Your task to perform on an android device: Set the phone to "Do not disturb". Image 0: 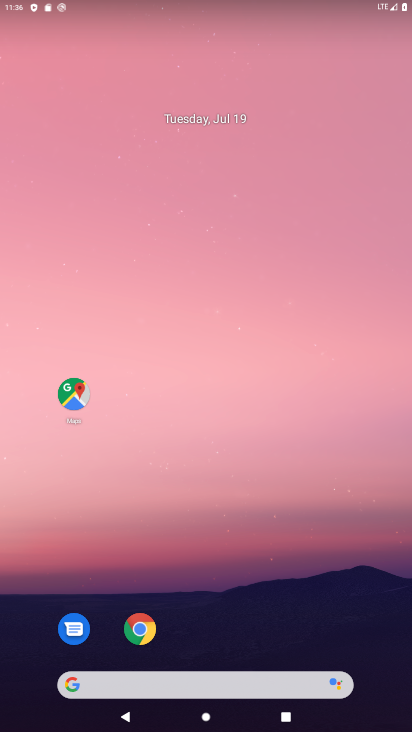
Step 0: drag from (191, 608) to (250, 27)
Your task to perform on an android device: Set the phone to "Do not disturb". Image 1: 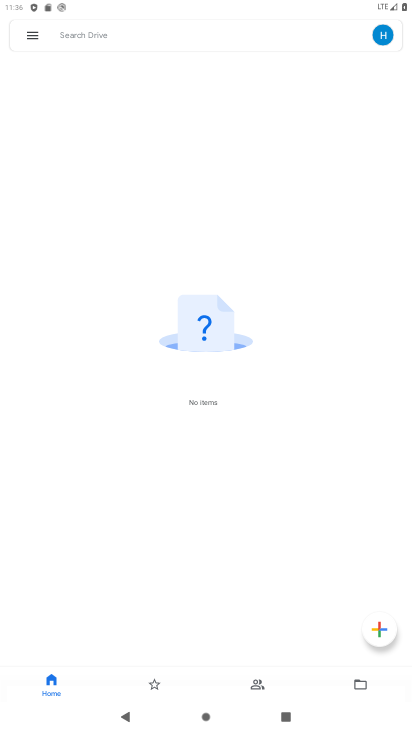
Step 1: press home button
Your task to perform on an android device: Set the phone to "Do not disturb". Image 2: 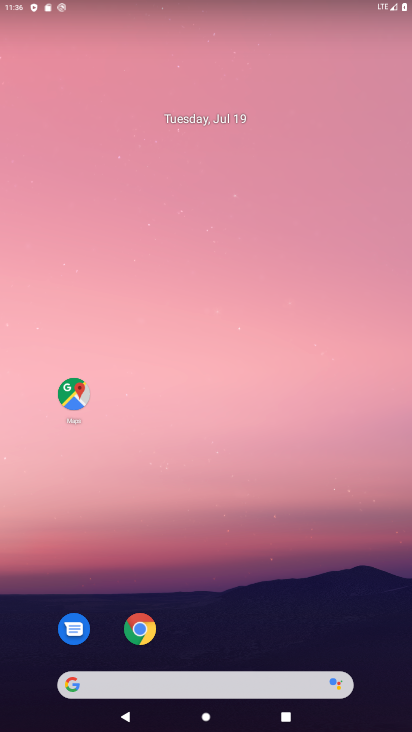
Step 2: click (144, 646)
Your task to perform on an android device: Set the phone to "Do not disturb". Image 3: 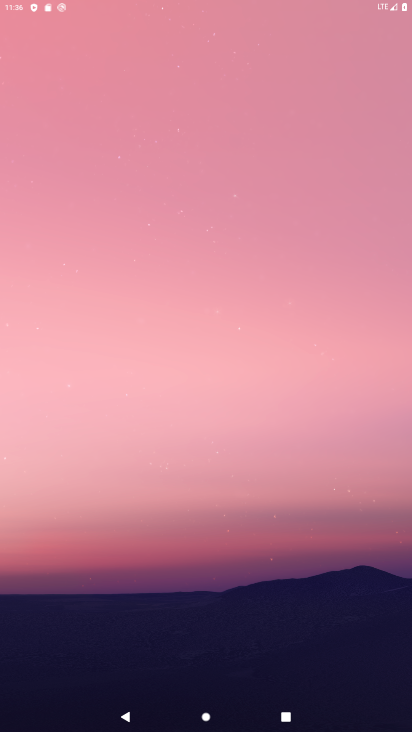
Step 3: drag from (204, 647) to (240, 167)
Your task to perform on an android device: Set the phone to "Do not disturb". Image 4: 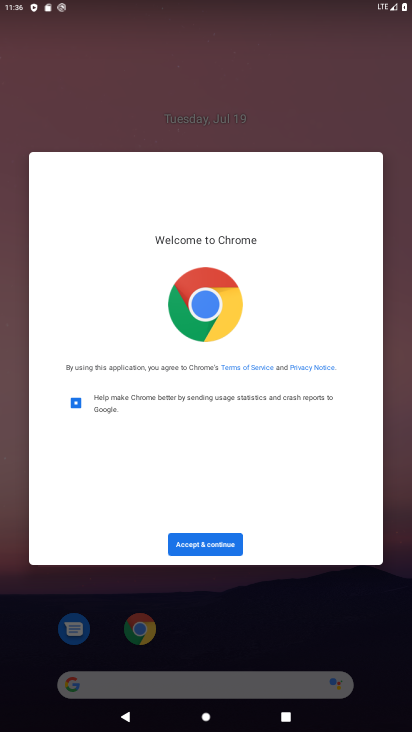
Step 4: press home button
Your task to perform on an android device: Set the phone to "Do not disturb". Image 5: 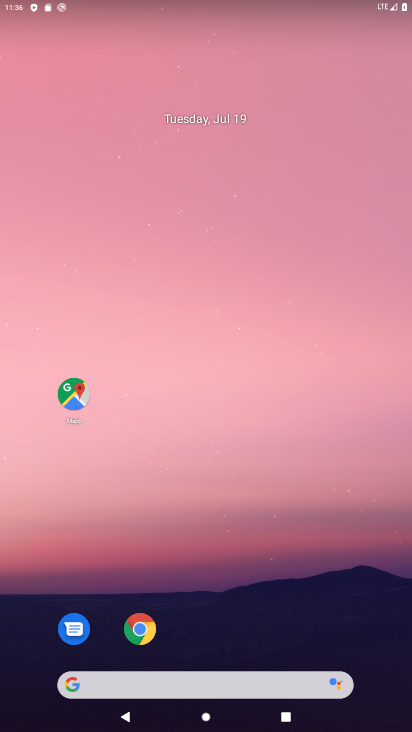
Step 5: drag from (186, 614) to (224, 153)
Your task to perform on an android device: Set the phone to "Do not disturb". Image 6: 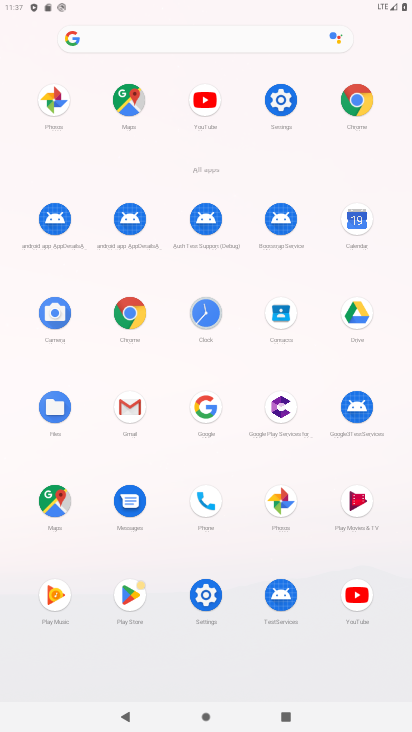
Step 6: click (277, 112)
Your task to perform on an android device: Set the phone to "Do not disturb". Image 7: 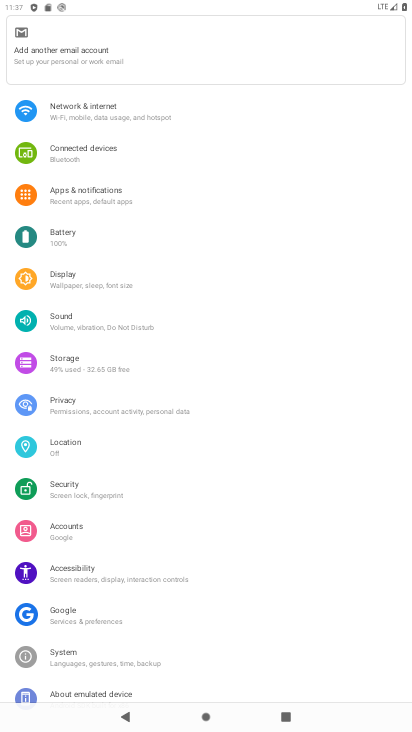
Step 7: click (69, 323)
Your task to perform on an android device: Set the phone to "Do not disturb". Image 8: 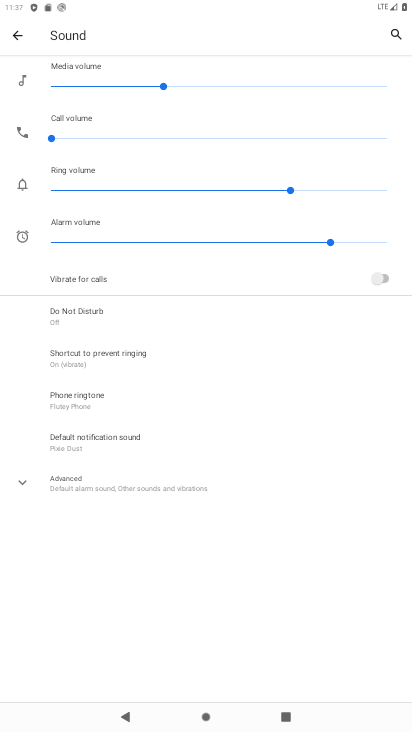
Step 8: click (72, 319)
Your task to perform on an android device: Set the phone to "Do not disturb". Image 9: 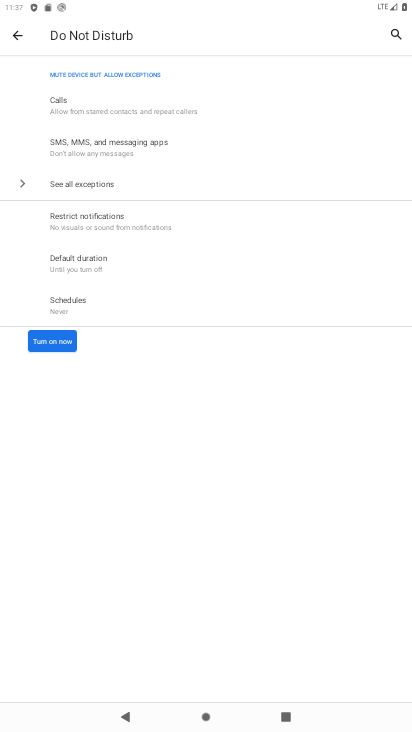
Step 9: click (53, 338)
Your task to perform on an android device: Set the phone to "Do not disturb". Image 10: 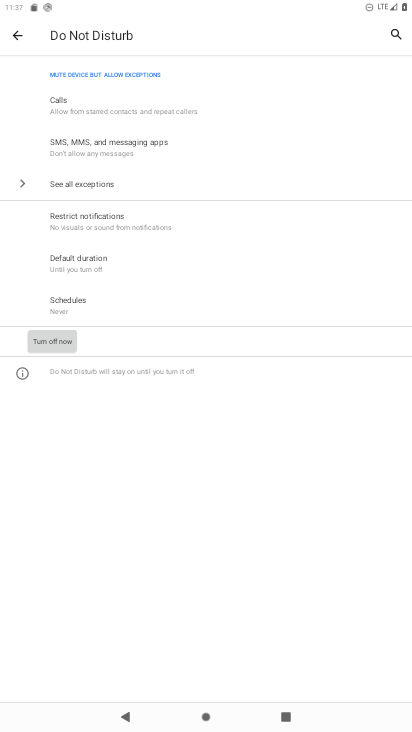
Step 10: task complete